Your task to perform on an android device: toggle data saver in the chrome app Image 0: 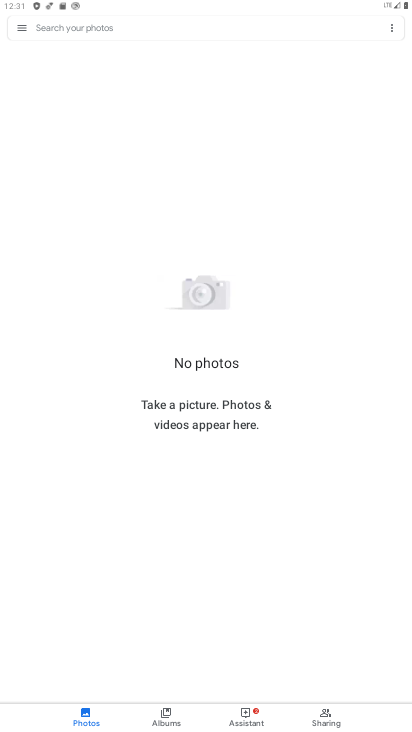
Step 0: press home button
Your task to perform on an android device: toggle data saver in the chrome app Image 1: 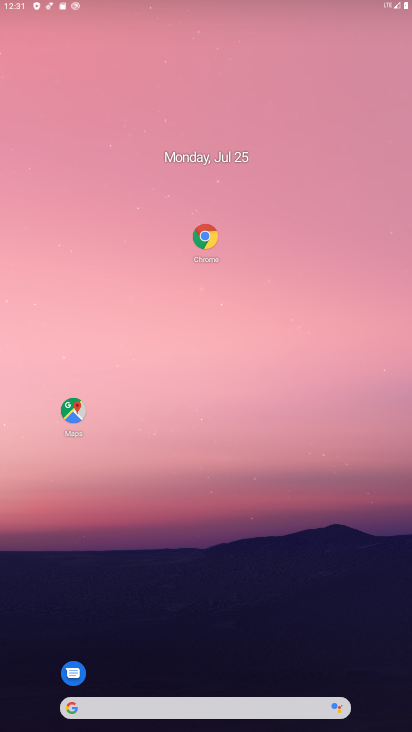
Step 1: drag from (300, 694) to (311, 21)
Your task to perform on an android device: toggle data saver in the chrome app Image 2: 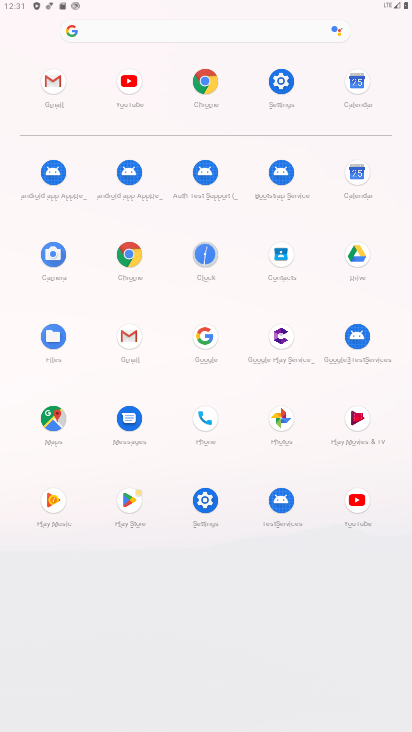
Step 2: click (135, 252)
Your task to perform on an android device: toggle data saver in the chrome app Image 3: 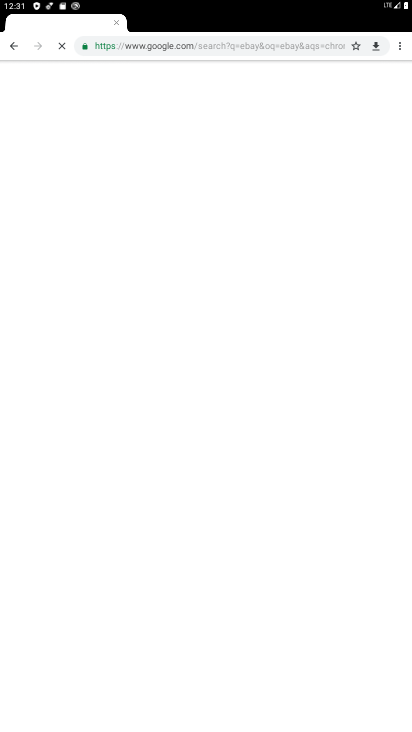
Step 3: drag from (401, 44) to (310, 283)
Your task to perform on an android device: toggle data saver in the chrome app Image 4: 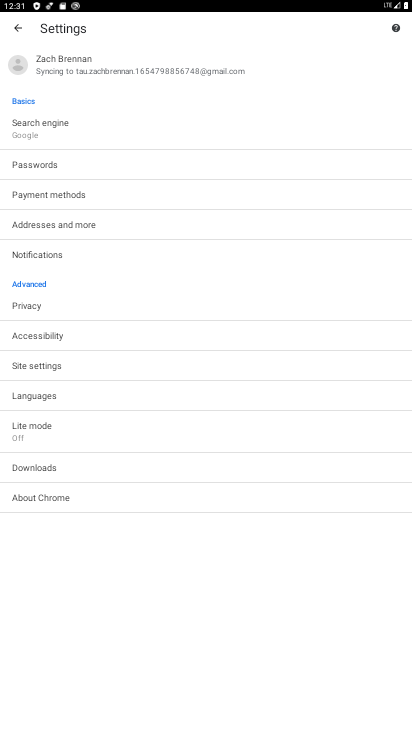
Step 4: click (48, 431)
Your task to perform on an android device: toggle data saver in the chrome app Image 5: 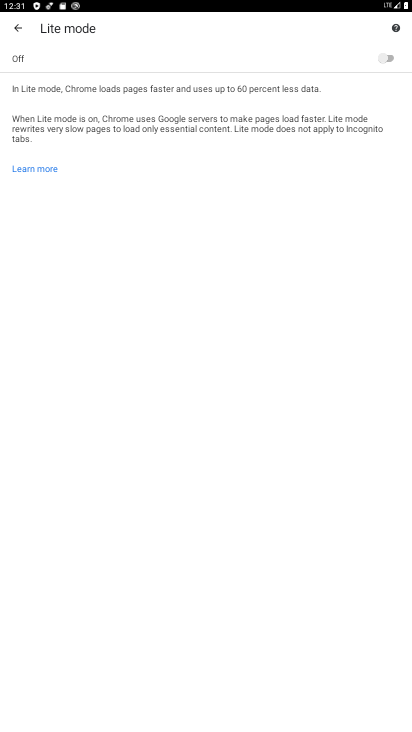
Step 5: click (392, 57)
Your task to perform on an android device: toggle data saver in the chrome app Image 6: 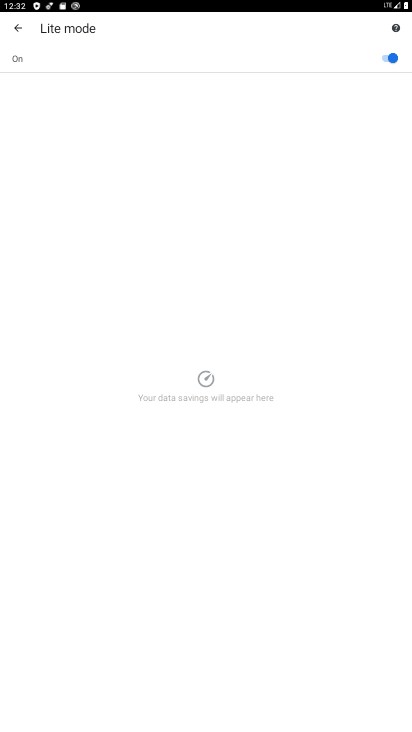
Step 6: task complete